Your task to perform on an android device: turn off location history Image 0: 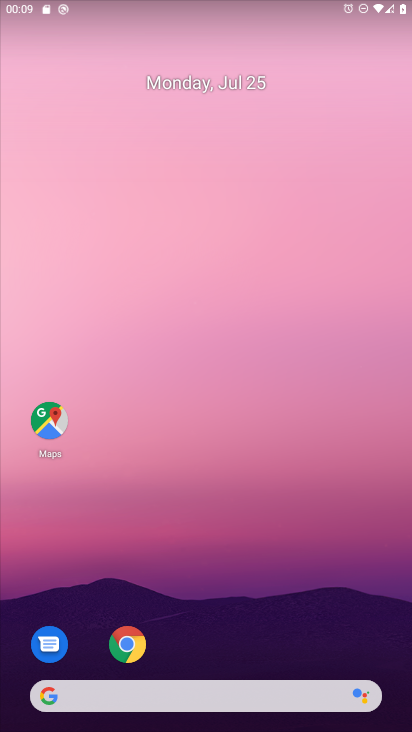
Step 0: click (48, 418)
Your task to perform on an android device: turn off location history Image 1: 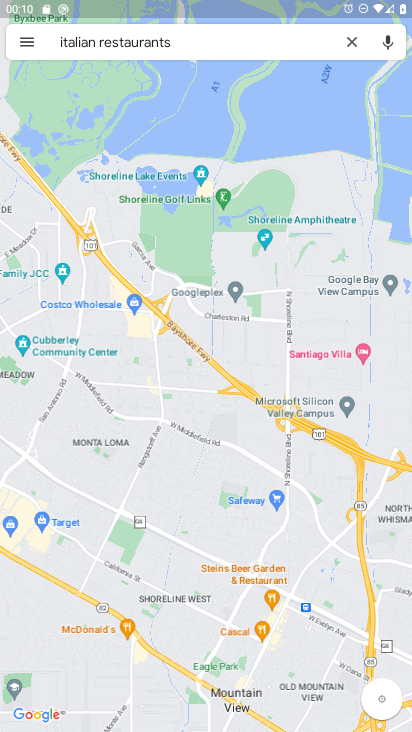
Step 1: click (22, 43)
Your task to perform on an android device: turn off location history Image 2: 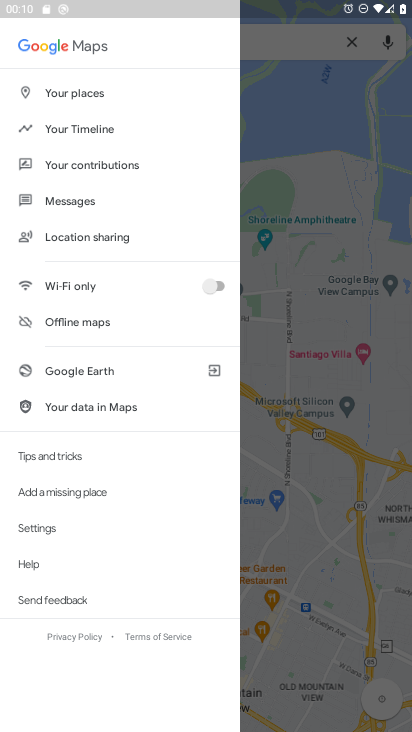
Step 2: click (28, 519)
Your task to perform on an android device: turn off location history Image 3: 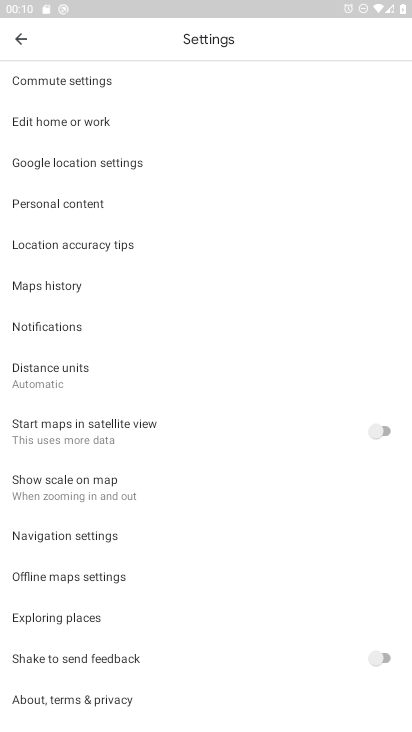
Step 3: click (55, 199)
Your task to perform on an android device: turn off location history Image 4: 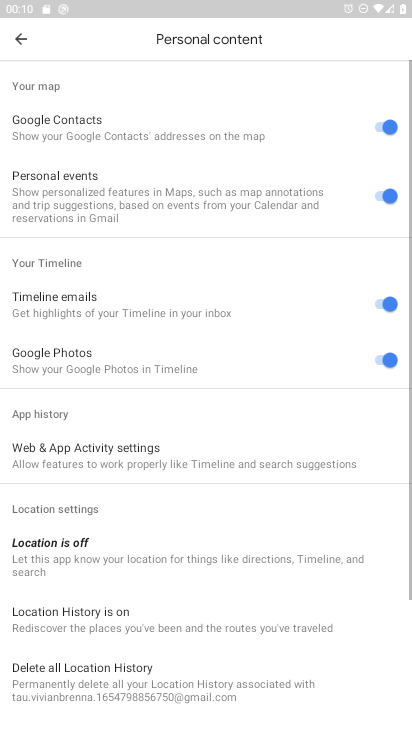
Step 4: click (73, 609)
Your task to perform on an android device: turn off location history Image 5: 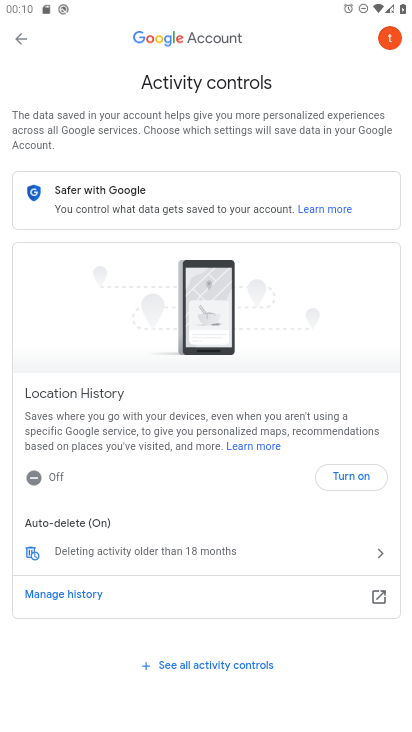
Step 5: task complete